Your task to perform on an android device: add a label to a message in the gmail app Image 0: 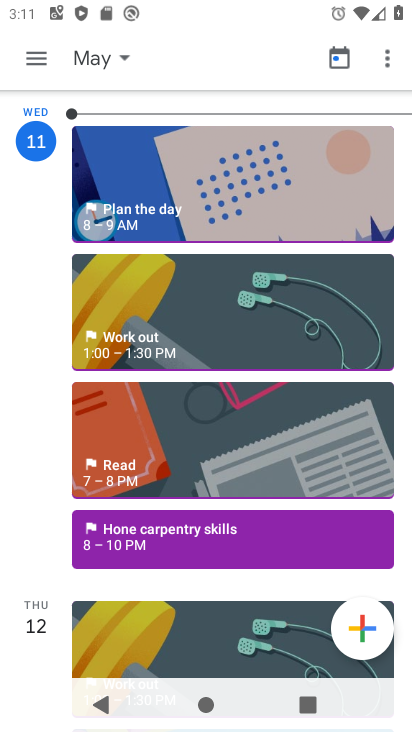
Step 0: press home button
Your task to perform on an android device: add a label to a message in the gmail app Image 1: 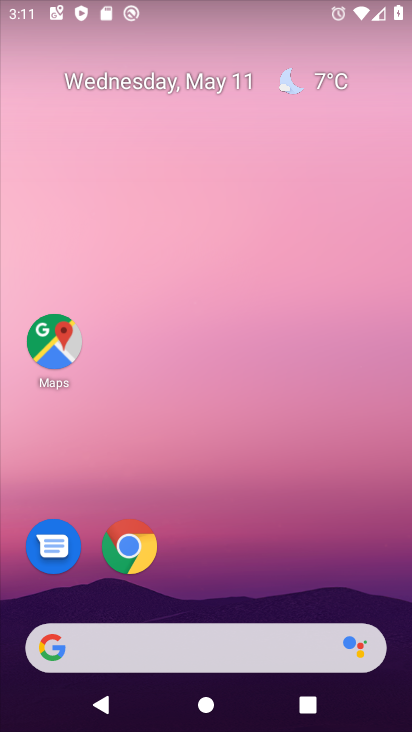
Step 1: drag from (286, 621) to (216, 126)
Your task to perform on an android device: add a label to a message in the gmail app Image 2: 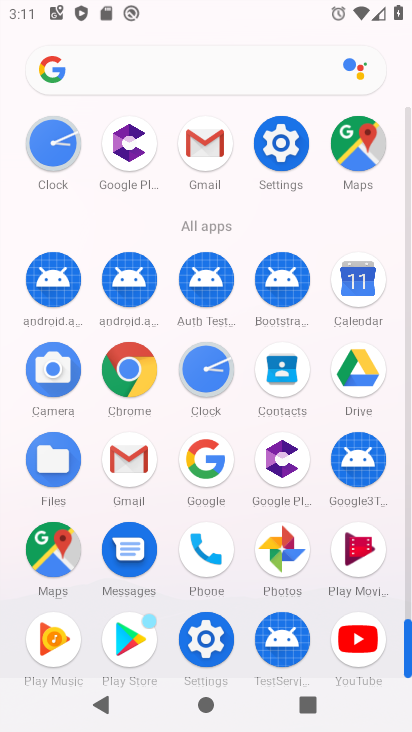
Step 2: click (132, 493)
Your task to perform on an android device: add a label to a message in the gmail app Image 3: 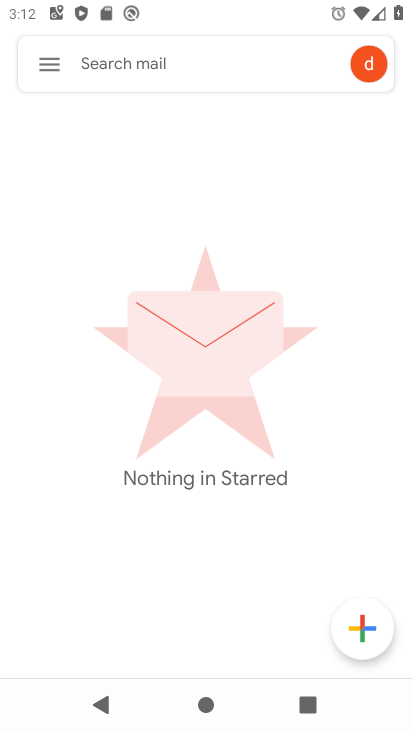
Step 3: click (32, 61)
Your task to perform on an android device: add a label to a message in the gmail app Image 4: 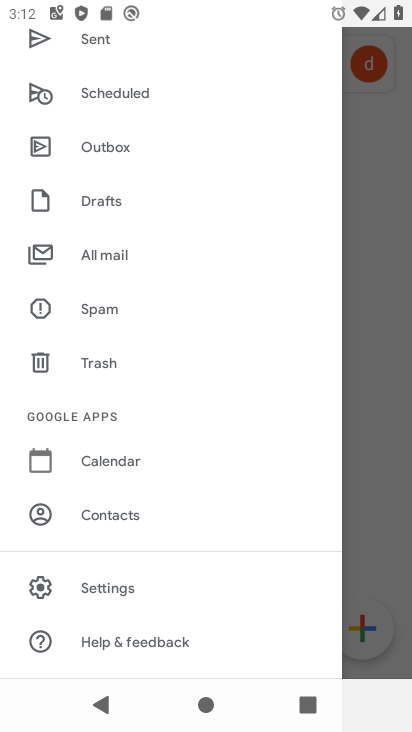
Step 4: click (164, 582)
Your task to perform on an android device: add a label to a message in the gmail app Image 5: 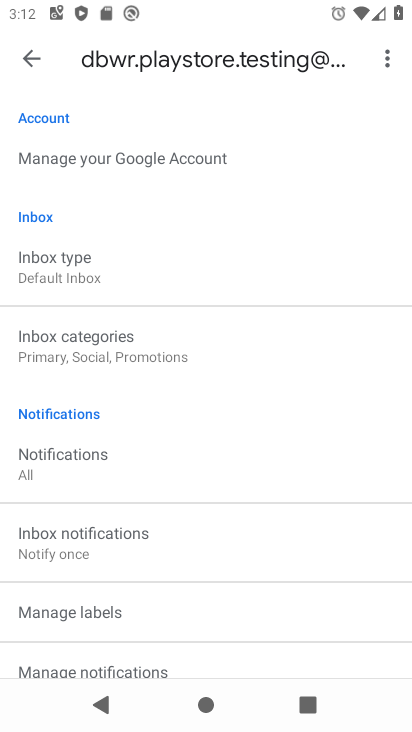
Step 5: press back button
Your task to perform on an android device: add a label to a message in the gmail app Image 6: 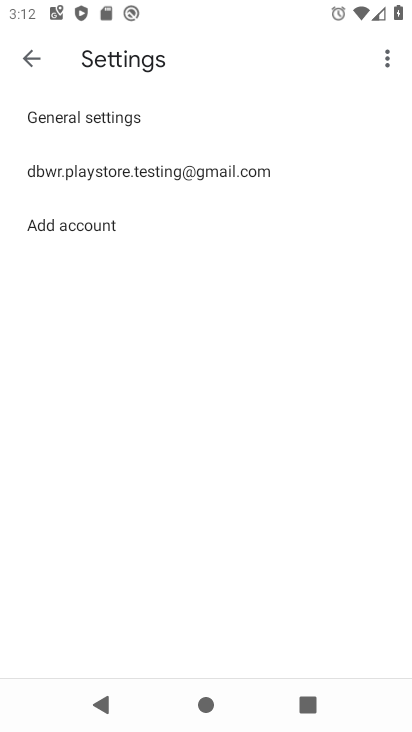
Step 6: press back button
Your task to perform on an android device: add a label to a message in the gmail app Image 7: 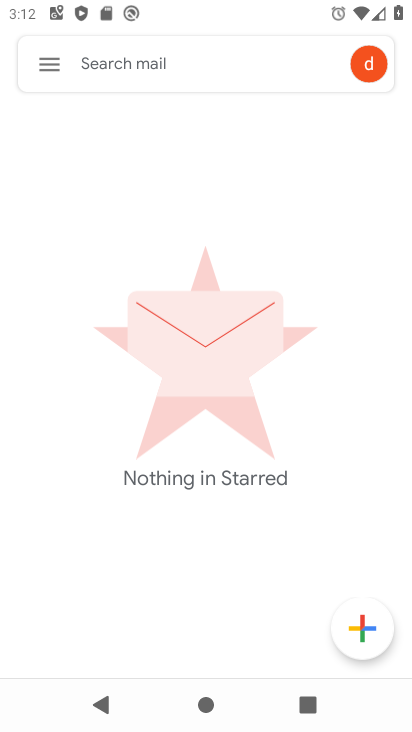
Step 7: click (44, 58)
Your task to perform on an android device: add a label to a message in the gmail app Image 8: 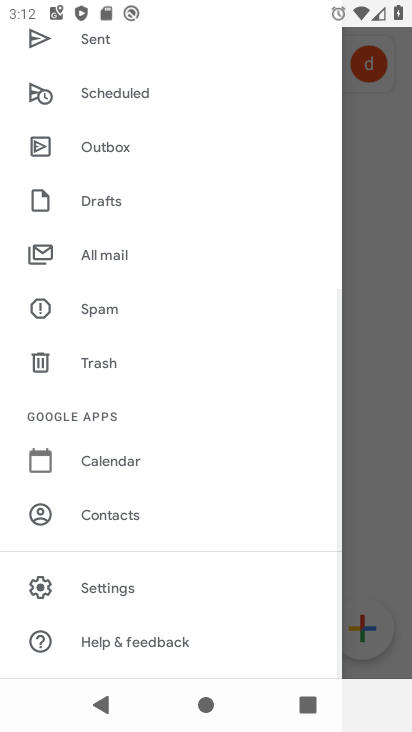
Step 8: task complete